Your task to perform on an android device: find which apps use the phone's location Image 0: 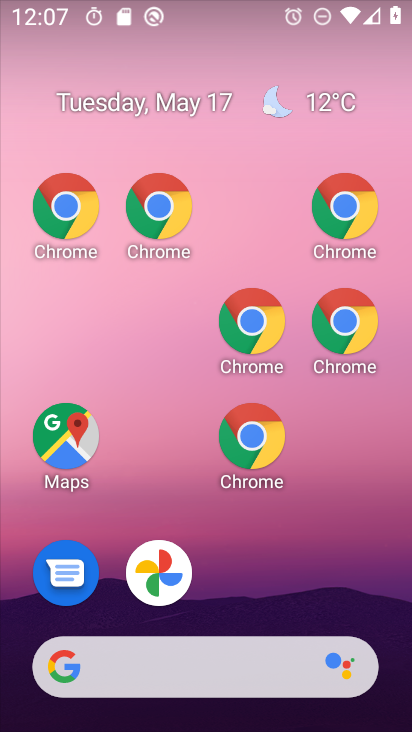
Step 0: drag from (310, 662) to (159, 146)
Your task to perform on an android device: find which apps use the phone's location Image 1: 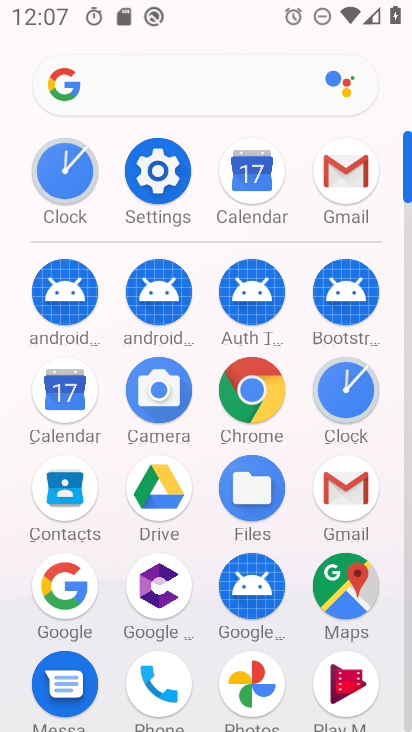
Step 1: click (165, 176)
Your task to perform on an android device: find which apps use the phone's location Image 2: 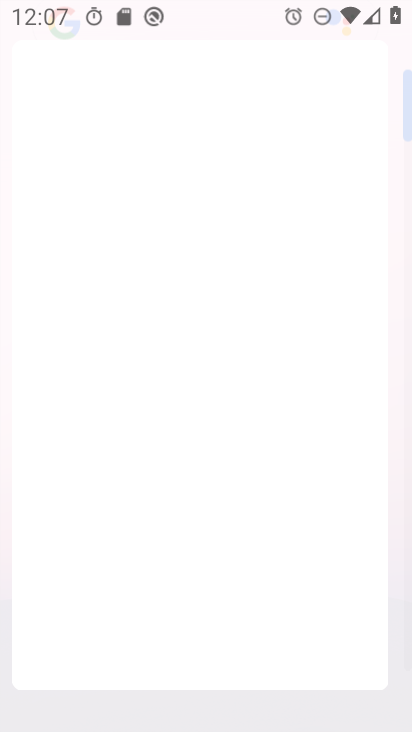
Step 2: click (165, 176)
Your task to perform on an android device: find which apps use the phone's location Image 3: 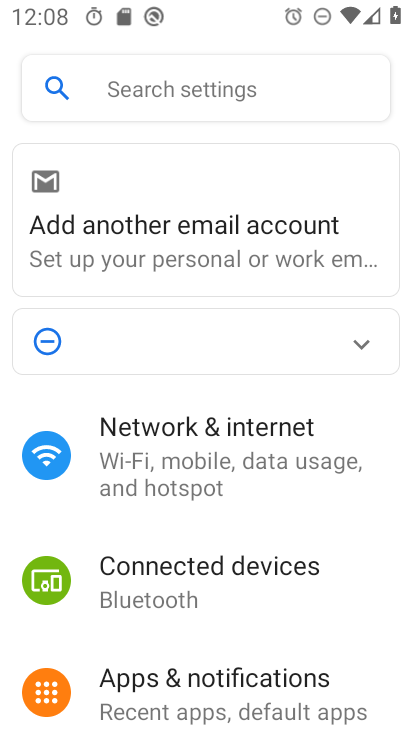
Step 3: drag from (224, 550) to (149, 240)
Your task to perform on an android device: find which apps use the phone's location Image 4: 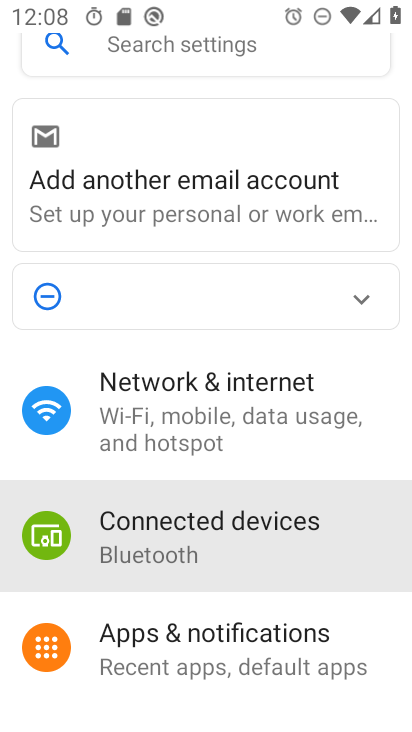
Step 4: drag from (205, 224) to (294, 321)
Your task to perform on an android device: find which apps use the phone's location Image 5: 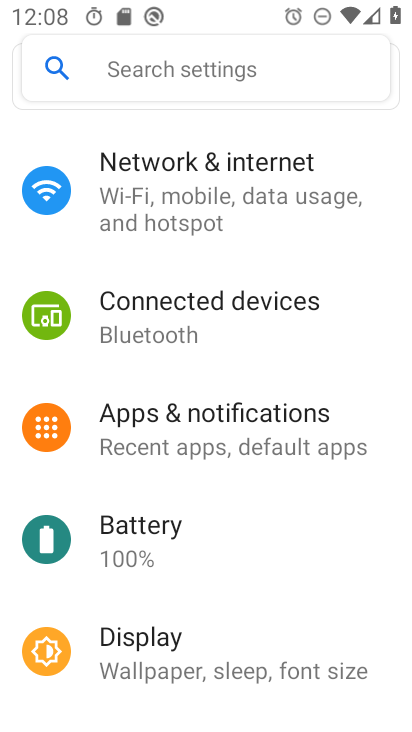
Step 5: drag from (192, 611) to (119, 157)
Your task to perform on an android device: find which apps use the phone's location Image 6: 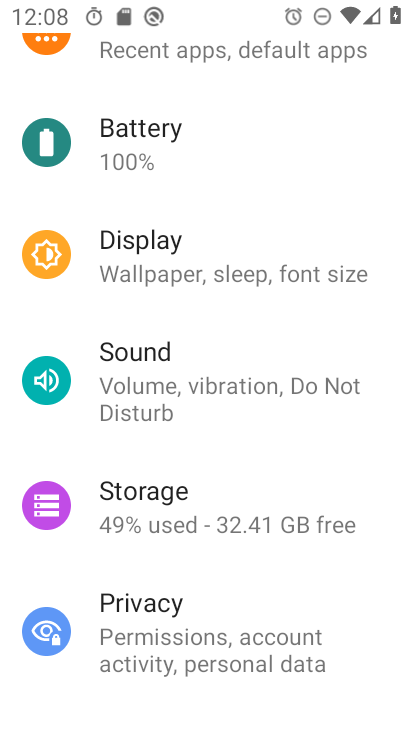
Step 6: drag from (251, 513) to (254, 198)
Your task to perform on an android device: find which apps use the phone's location Image 7: 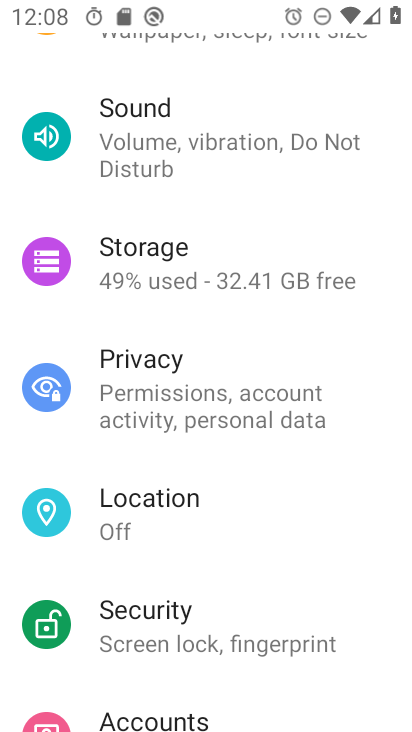
Step 7: drag from (245, 640) to (211, 201)
Your task to perform on an android device: find which apps use the phone's location Image 8: 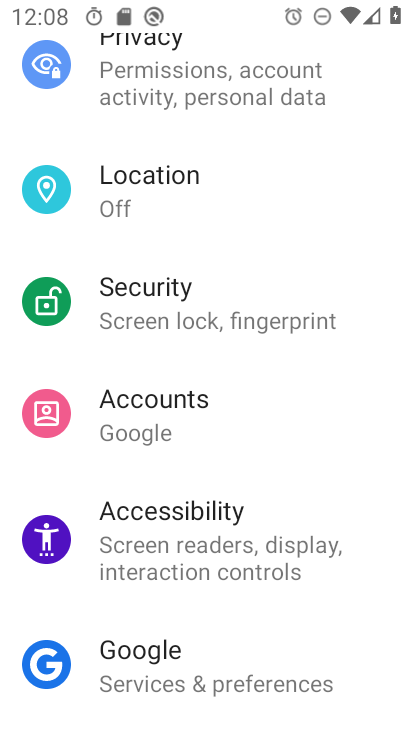
Step 8: drag from (268, 514) to (196, 30)
Your task to perform on an android device: find which apps use the phone's location Image 9: 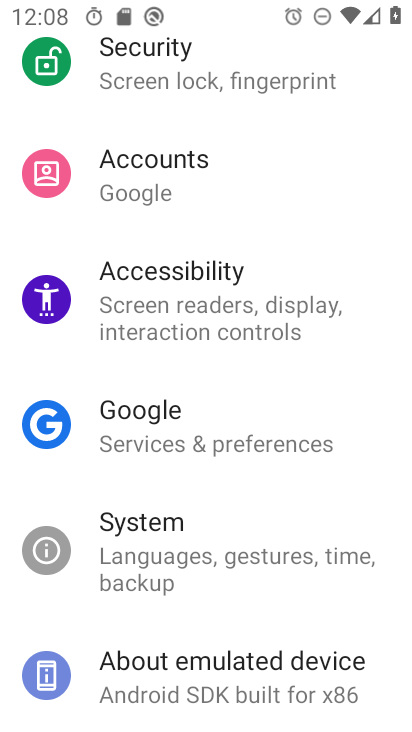
Step 9: drag from (132, 114) to (254, 607)
Your task to perform on an android device: find which apps use the phone's location Image 10: 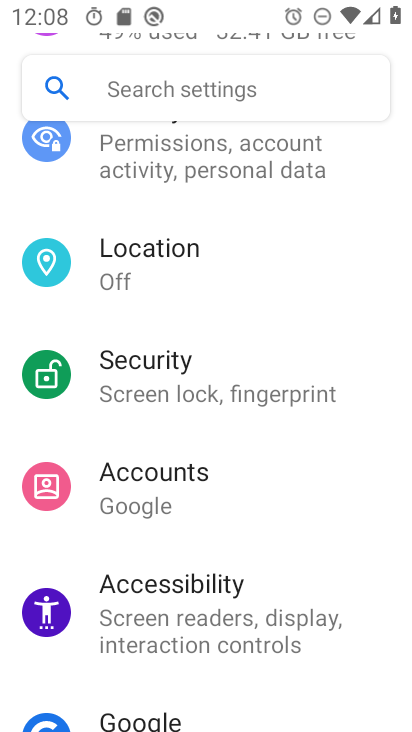
Step 10: click (107, 277)
Your task to perform on an android device: find which apps use the phone's location Image 11: 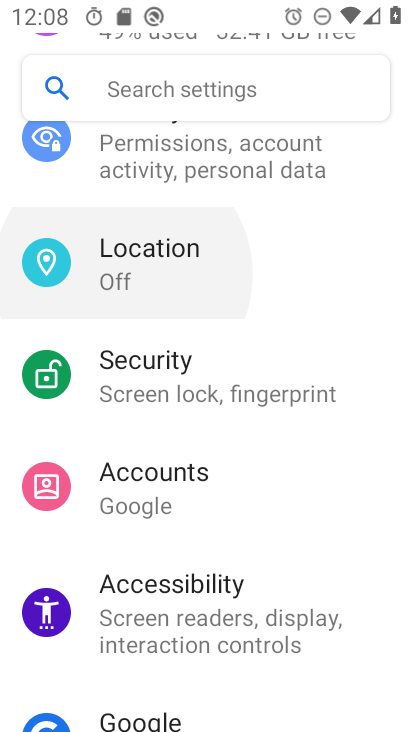
Step 11: click (116, 275)
Your task to perform on an android device: find which apps use the phone's location Image 12: 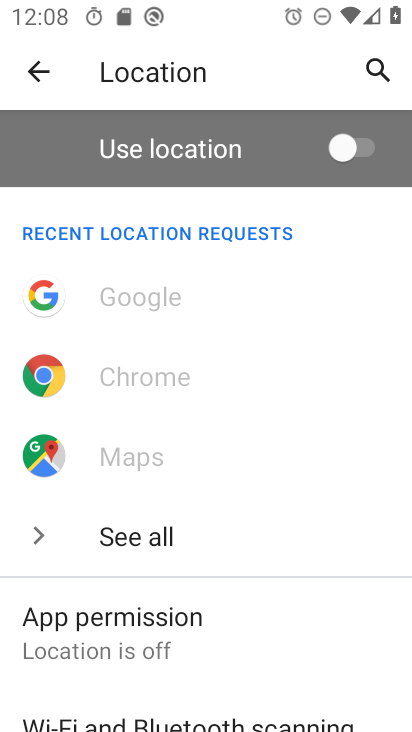
Step 12: drag from (182, 533) to (214, 117)
Your task to perform on an android device: find which apps use the phone's location Image 13: 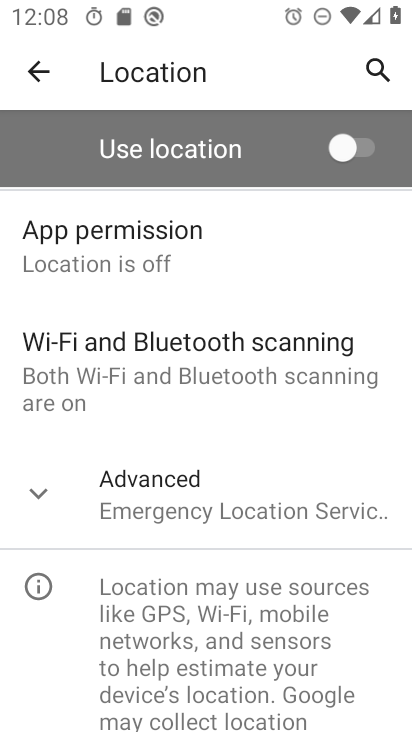
Step 13: click (94, 247)
Your task to perform on an android device: find which apps use the phone's location Image 14: 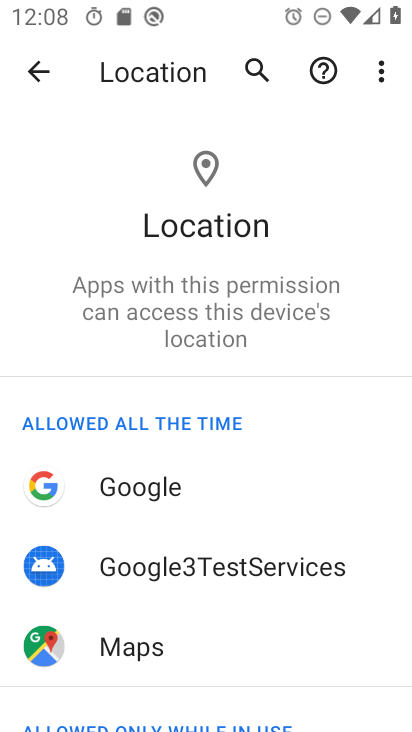
Step 14: drag from (220, 519) to (174, 99)
Your task to perform on an android device: find which apps use the phone's location Image 15: 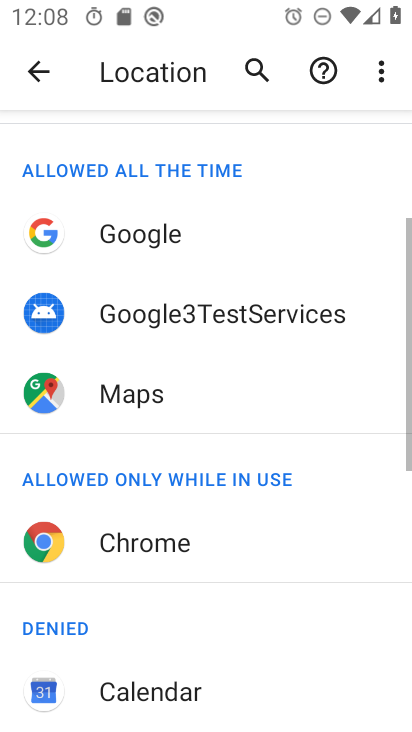
Step 15: drag from (303, 495) to (333, 15)
Your task to perform on an android device: find which apps use the phone's location Image 16: 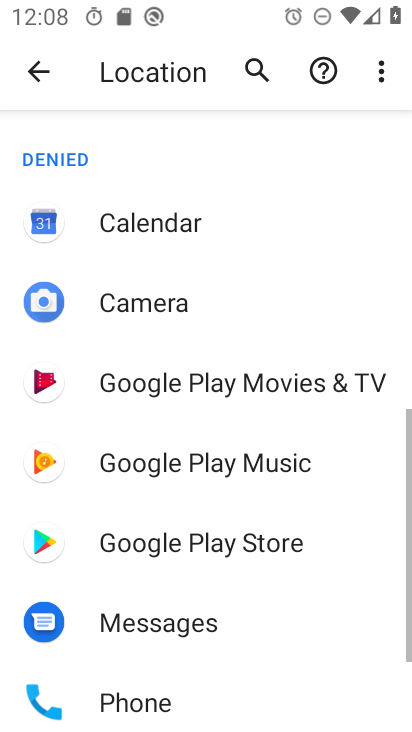
Step 16: drag from (299, 532) to (333, 11)
Your task to perform on an android device: find which apps use the phone's location Image 17: 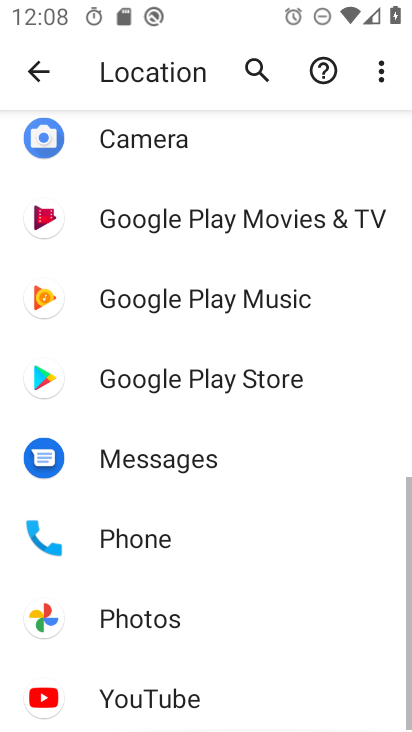
Step 17: drag from (343, 533) to (334, 93)
Your task to perform on an android device: find which apps use the phone's location Image 18: 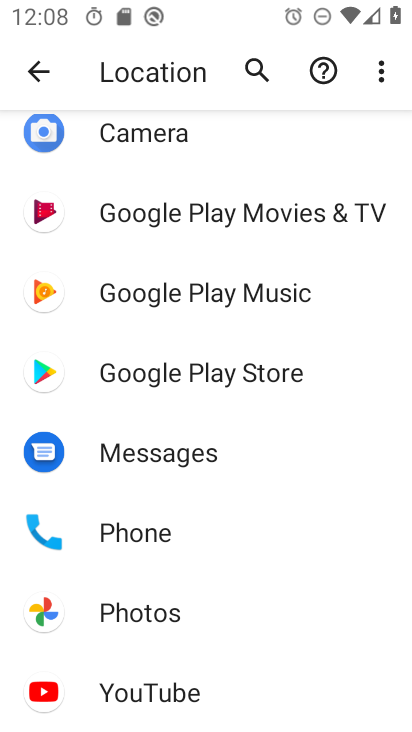
Step 18: click (114, 518)
Your task to perform on an android device: find which apps use the phone's location Image 19: 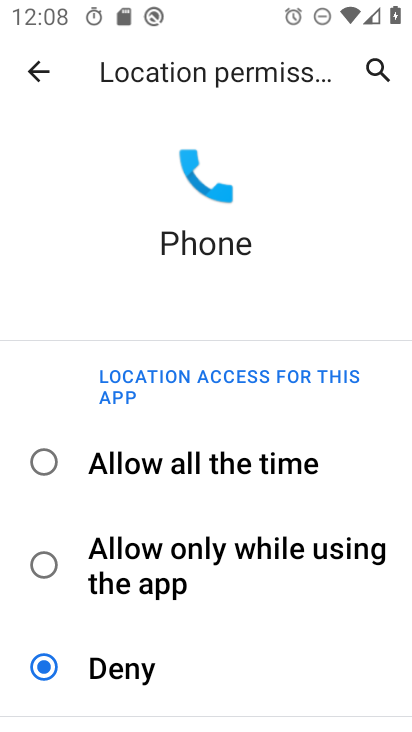
Step 19: task complete